Your task to perform on an android device: open wifi settings Image 0: 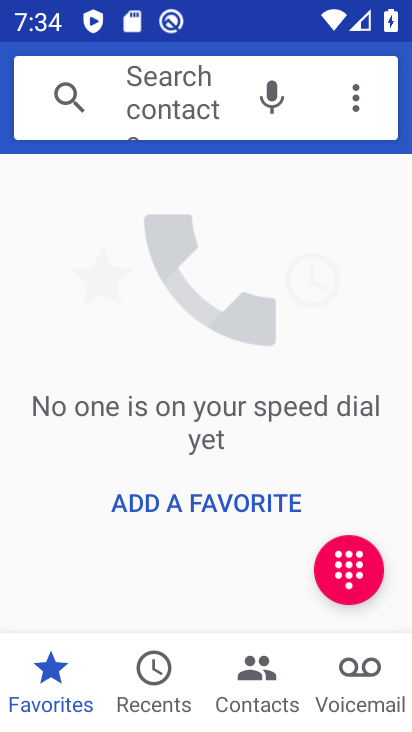
Step 0: press home button
Your task to perform on an android device: open wifi settings Image 1: 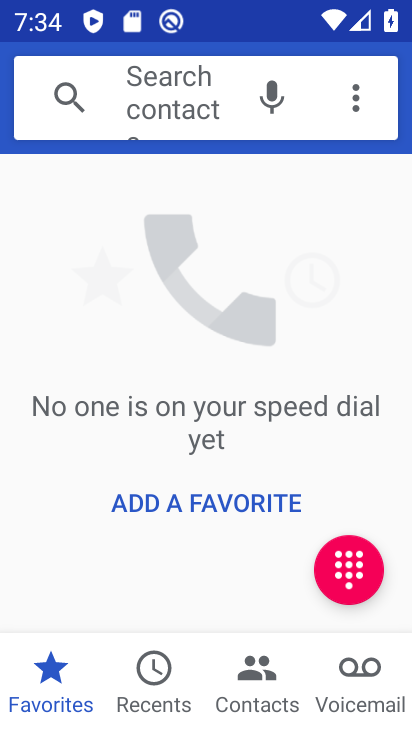
Step 1: press home button
Your task to perform on an android device: open wifi settings Image 2: 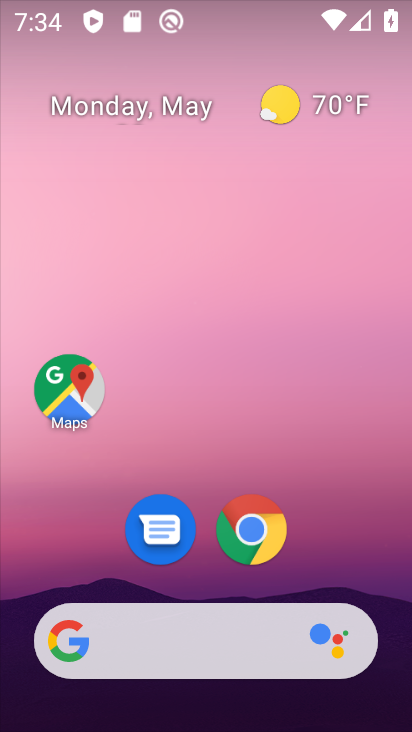
Step 2: drag from (207, 583) to (185, 25)
Your task to perform on an android device: open wifi settings Image 3: 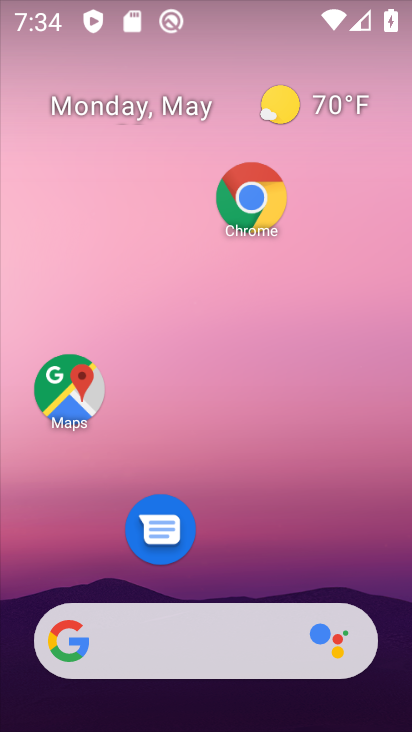
Step 3: drag from (302, 554) to (341, 32)
Your task to perform on an android device: open wifi settings Image 4: 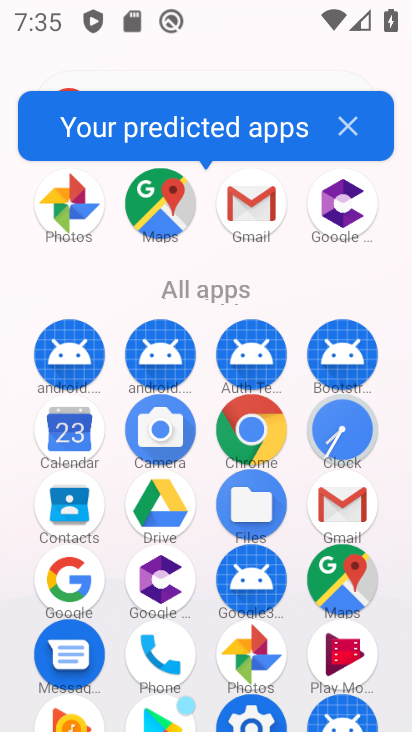
Step 4: click (257, 716)
Your task to perform on an android device: open wifi settings Image 5: 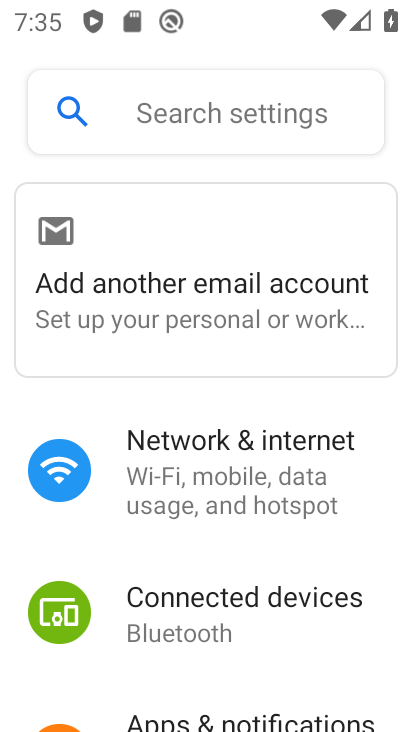
Step 5: click (185, 483)
Your task to perform on an android device: open wifi settings Image 6: 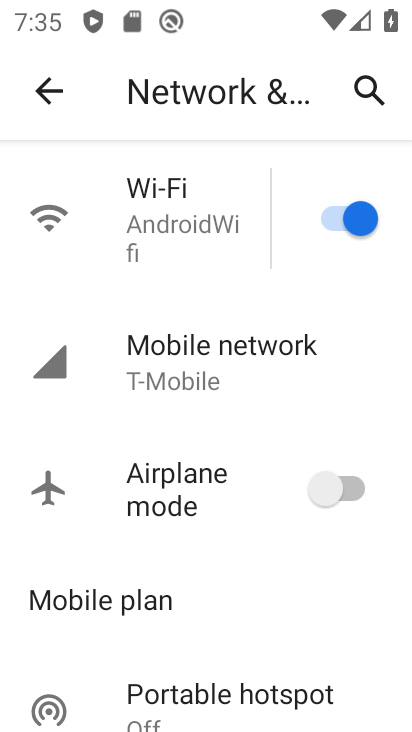
Step 6: click (193, 222)
Your task to perform on an android device: open wifi settings Image 7: 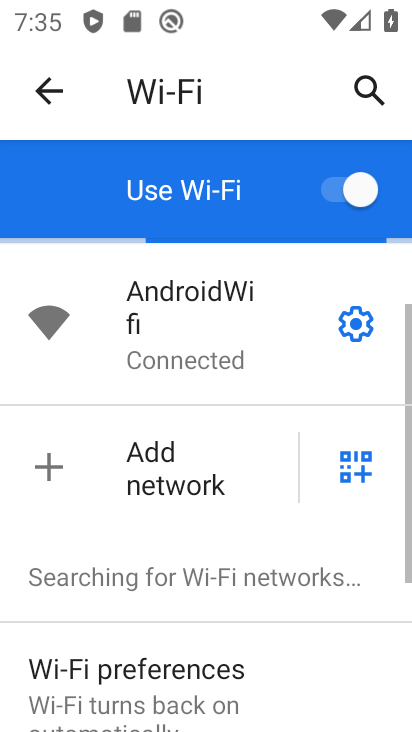
Step 7: task complete